Your task to perform on an android device: Open Google Chrome Image 0: 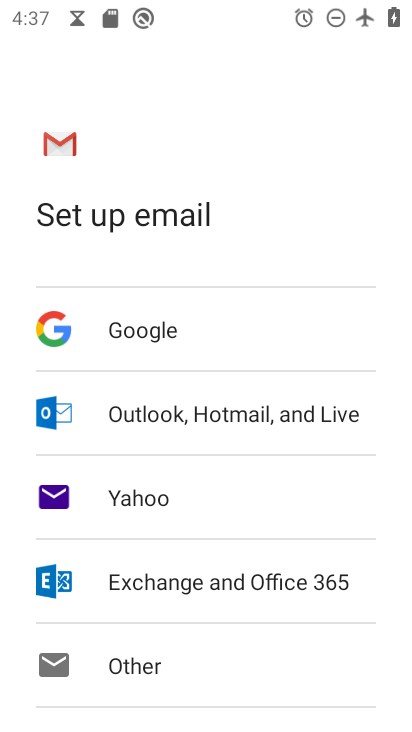
Step 0: press home button
Your task to perform on an android device: Open Google Chrome Image 1: 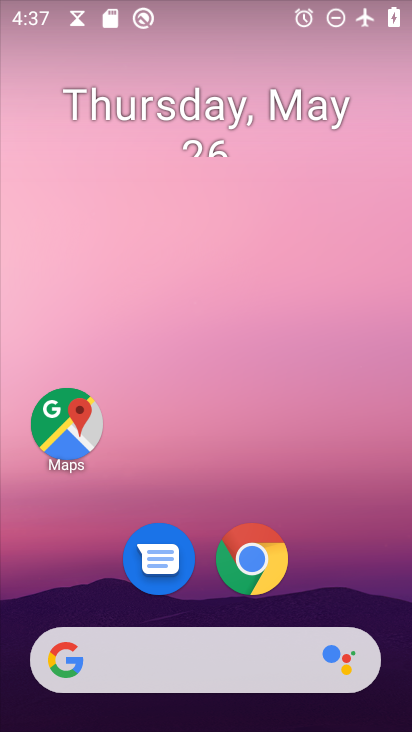
Step 1: click (257, 557)
Your task to perform on an android device: Open Google Chrome Image 2: 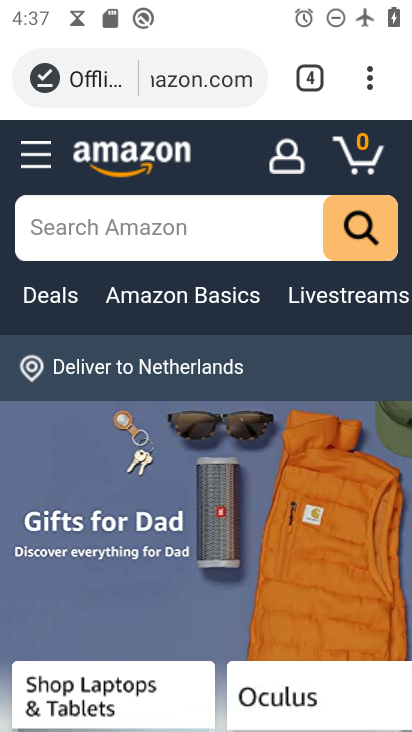
Step 2: task complete